Your task to perform on an android device: Do I have any events this weekend? Image 0: 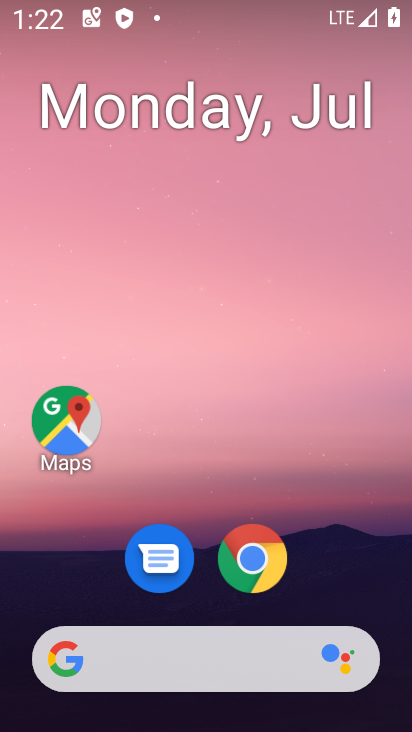
Step 0: press home button
Your task to perform on an android device: Do I have any events this weekend? Image 1: 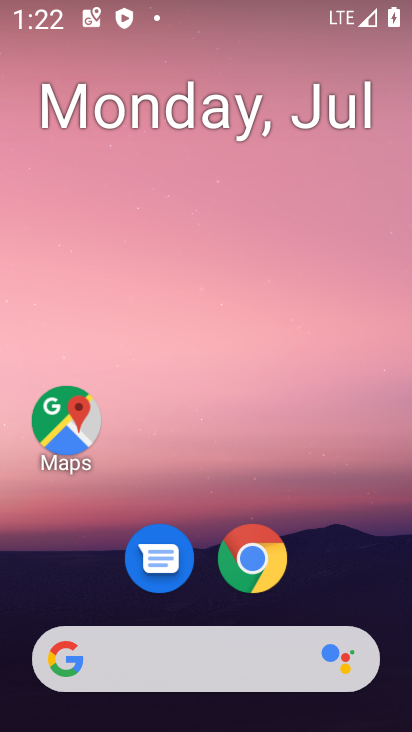
Step 1: drag from (361, 575) to (342, 118)
Your task to perform on an android device: Do I have any events this weekend? Image 2: 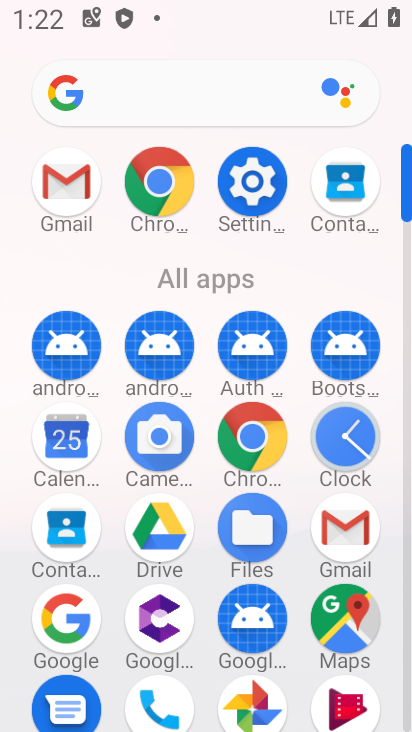
Step 2: click (70, 443)
Your task to perform on an android device: Do I have any events this weekend? Image 3: 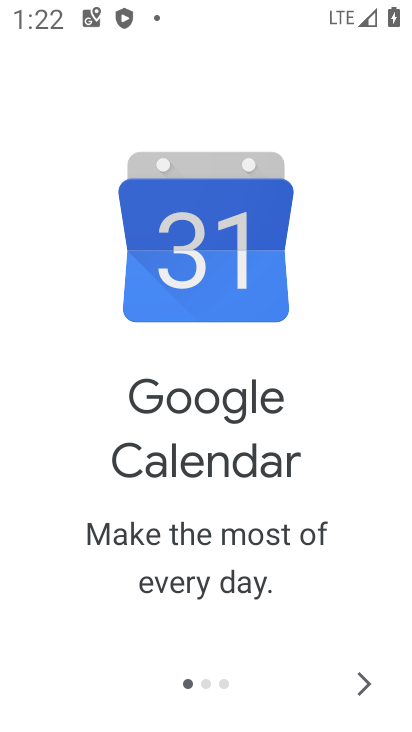
Step 3: click (365, 676)
Your task to perform on an android device: Do I have any events this weekend? Image 4: 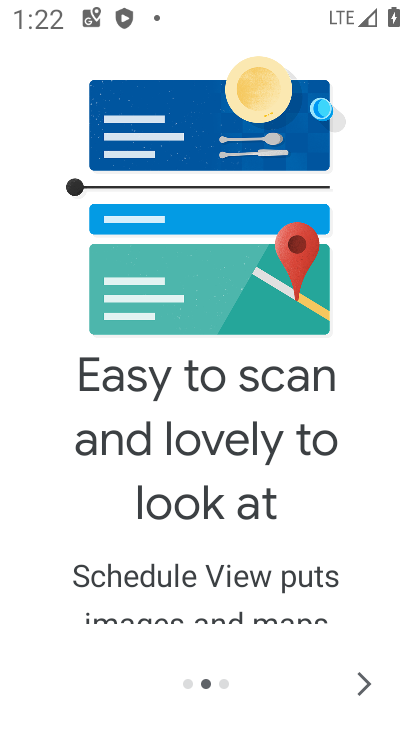
Step 4: click (365, 676)
Your task to perform on an android device: Do I have any events this weekend? Image 5: 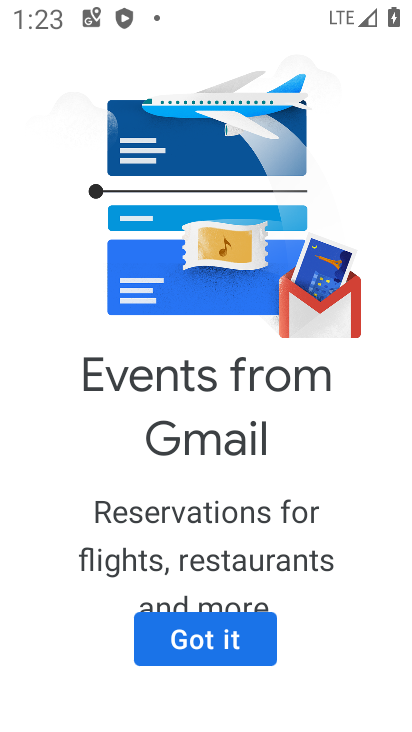
Step 5: click (244, 645)
Your task to perform on an android device: Do I have any events this weekend? Image 6: 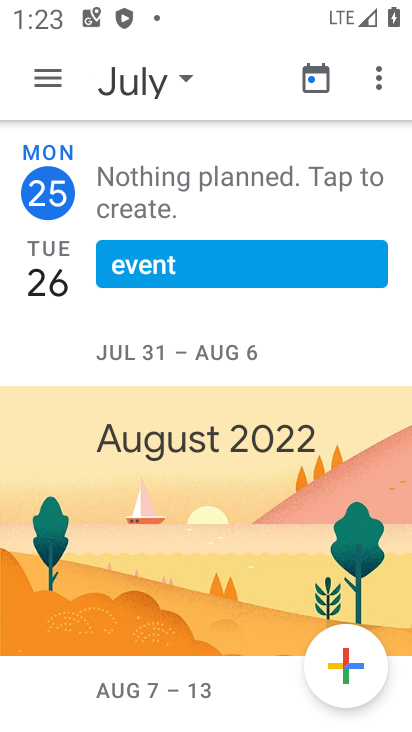
Step 6: click (148, 259)
Your task to perform on an android device: Do I have any events this weekend? Image 7: 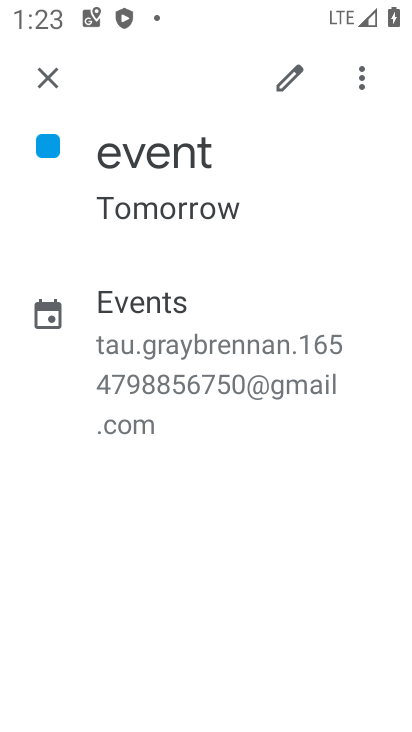
Step 7: task complete